Your task to perform on an android device: Open Maps and search for coffee Image 0: 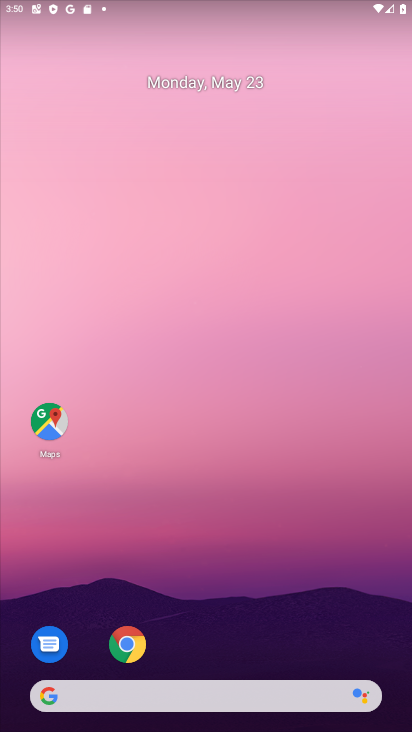
Step 0: drag from (264, 646) to (210, 223)
Your task to perform on an android device: Open Maps and search for coffee Image 1: 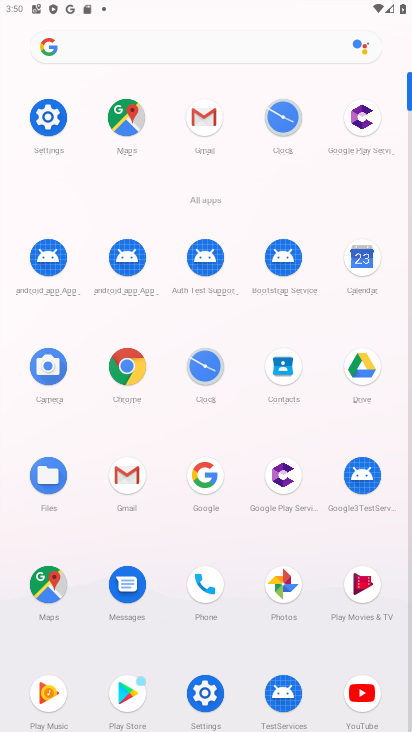
Step 1: click (38, 588)
Your task to perform on an android device: Open Maps and search for coffee Image 2: 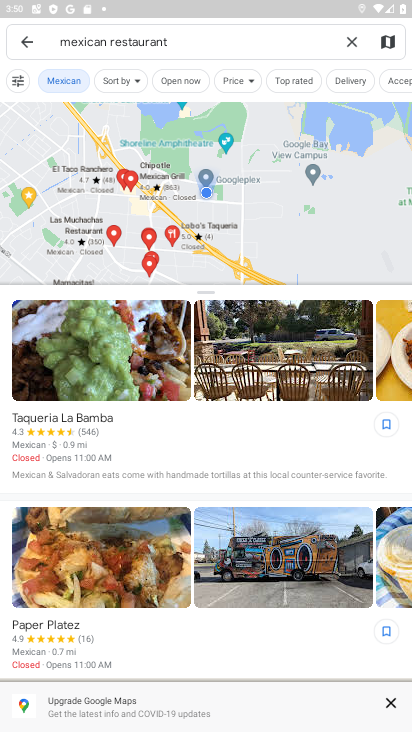
Step 2: click (347, 40)
Your task to perform on an android device: Open Maps and search for coffee Image 3: 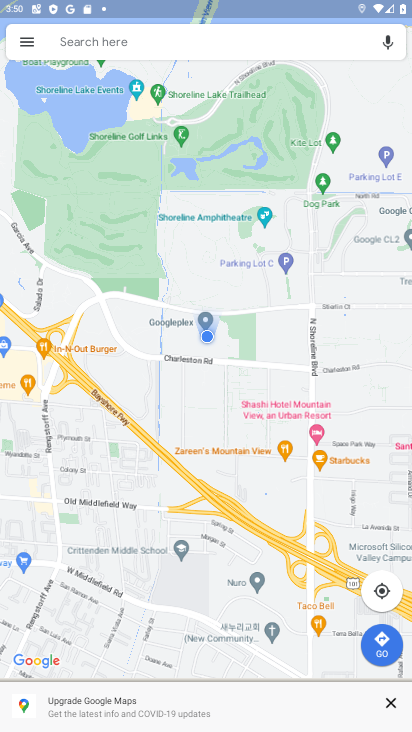
Step 3: click (171, 38)
Your task to perform on an android device: Open Maps and search for coffee Image 4: 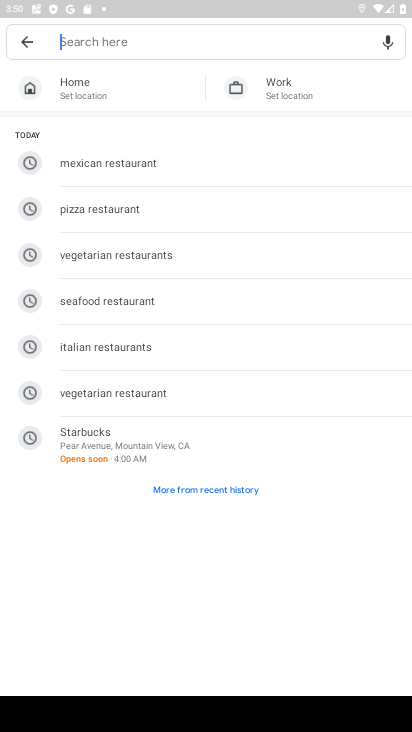
Step 4: type "coffee"
Your task to perform on an android device: Open Maps and search for coffee Image 5: 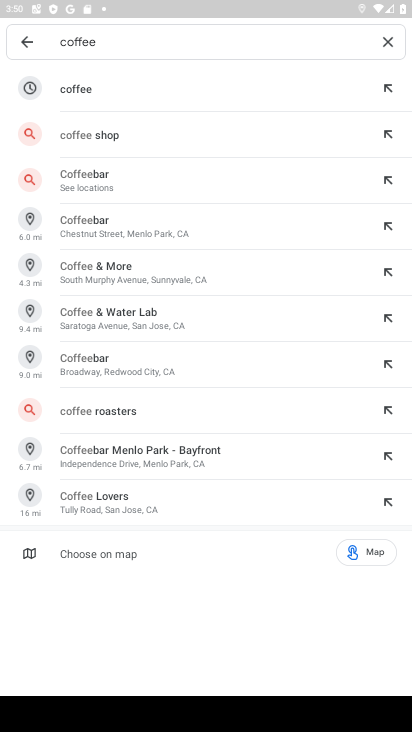
Step 5: click (116, 93)
Your task to perform on an android device: Open Maps and search for coffee Image 6: 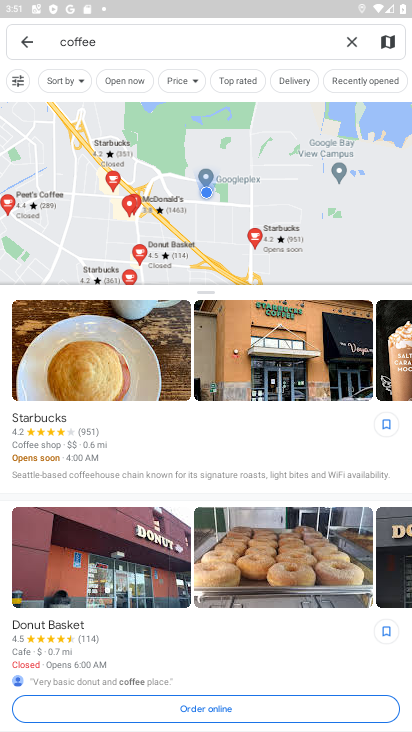
Step 6: task complete